Your task to perform on an android device: change alarm snooze length Image 0: 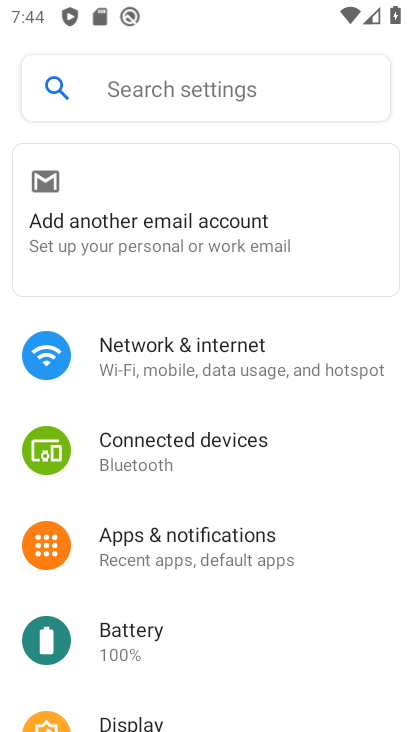
Step 0: press home button
Your task to perform on an android device: change alarm snooze length Image 1: 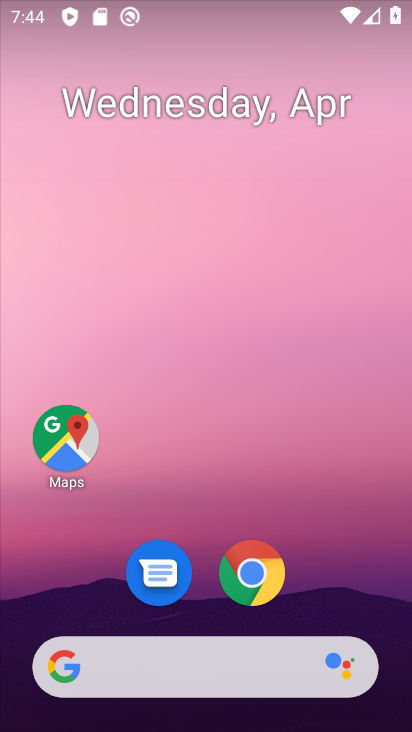
Step 1: drag from (17, 656) to (200, 264)
Your task to perform on an android device: change alarm snooze length Image 2: 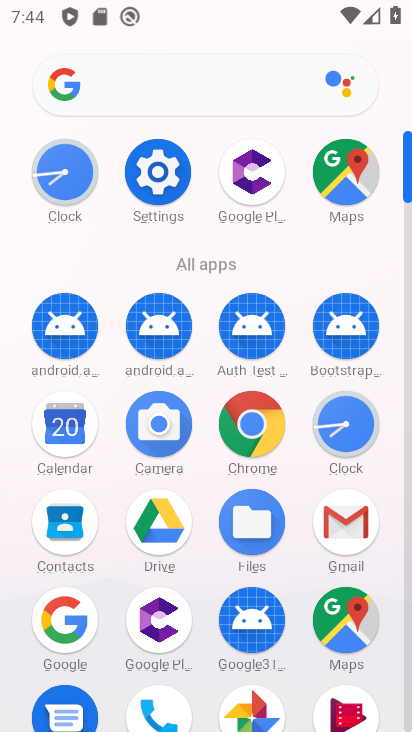
Step 2: click (344, 425)
Your task to perform on an android device: change alarm snooze length Image 3: 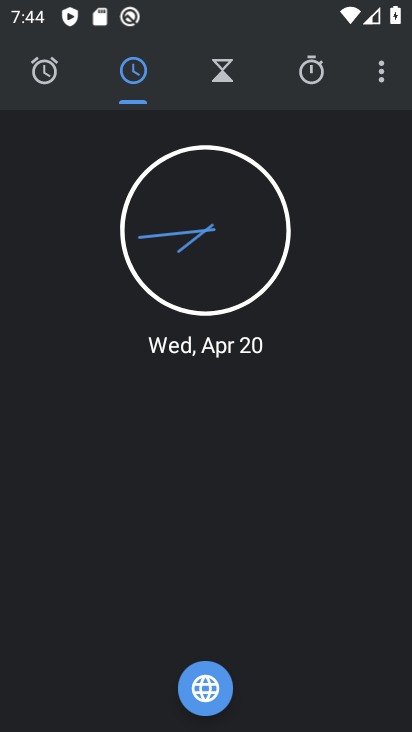
Step 3: click (389, 66)
Your task to perform on an android device: change alarm snooze length Image 4: 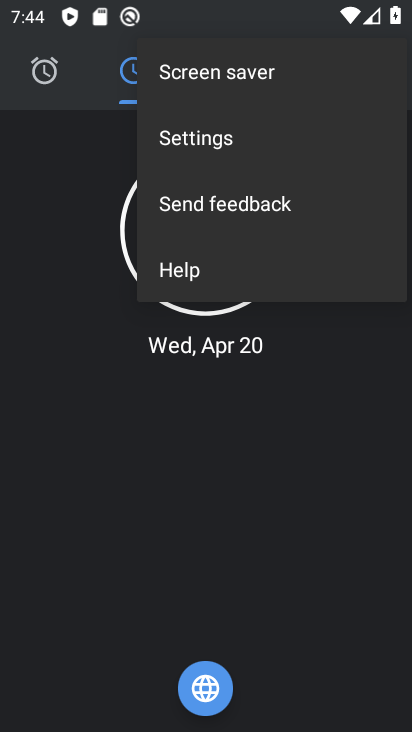
Step 4: click (248, 132)
Your task to perform on an android device: change alarm snooze length Image 5: 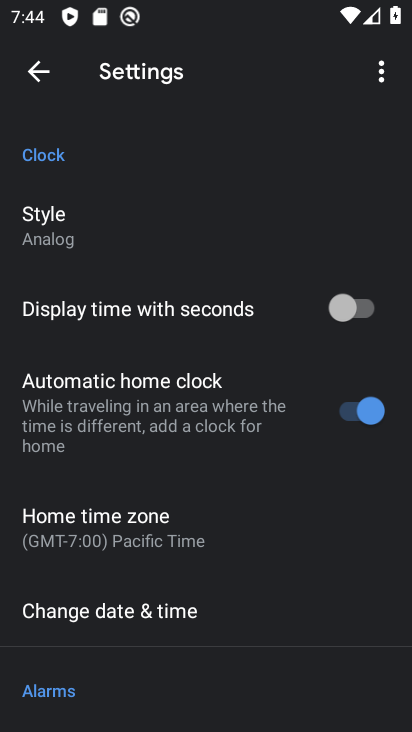
Step 5: drag from (173, 623) to (271, 156)
Your task to perform on an android device: change alarm snooze length Image 6: 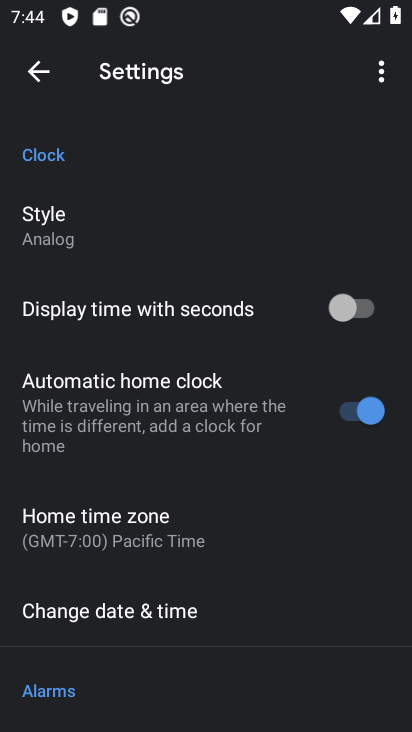
Step 6: drag from (116, 598) to (235, 191)
Your task to perform on an android device: change alarm snooze length Image 7: 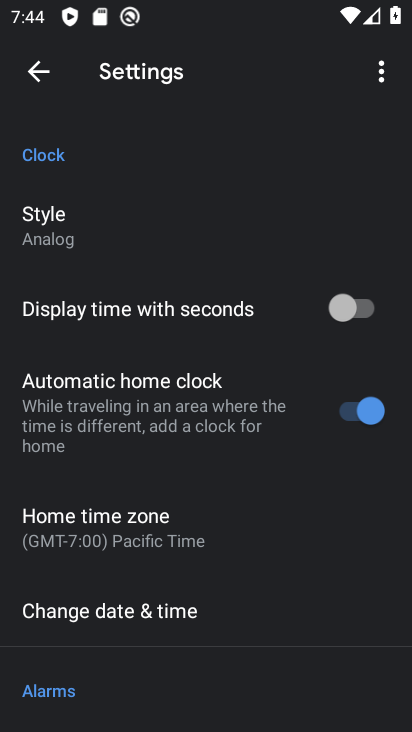
Step 7: drag from (40, 546) to (198, 163)
Your task to perform on an android device: change alarm snooze length Image 8: 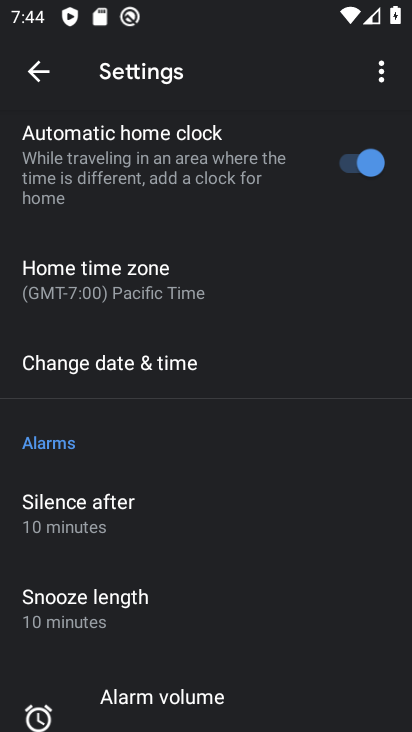
Step 8: click (94, 604)
Your task to perform on an android device: change alarm snooze length Image 9: 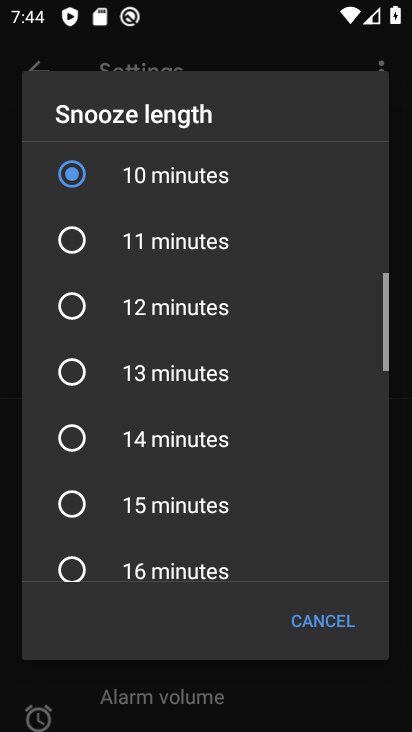
Step 9: click (147, 249)
Your task to perform on an android device: change alarm snooze length Image 10: 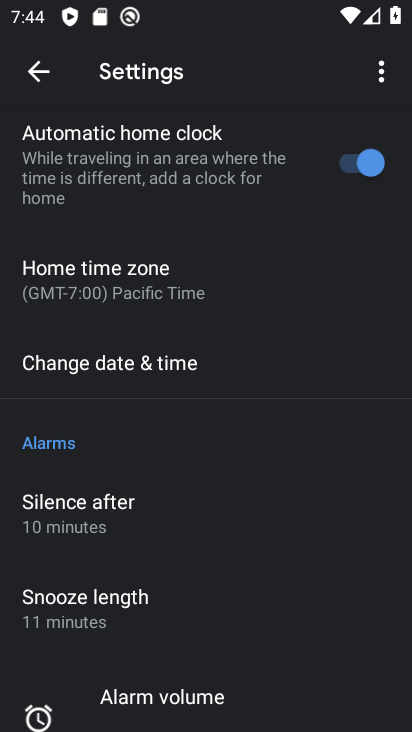
Step 10: task complete